Your task to perform on an android device: stop showing notifications on the lock screen Image 0: 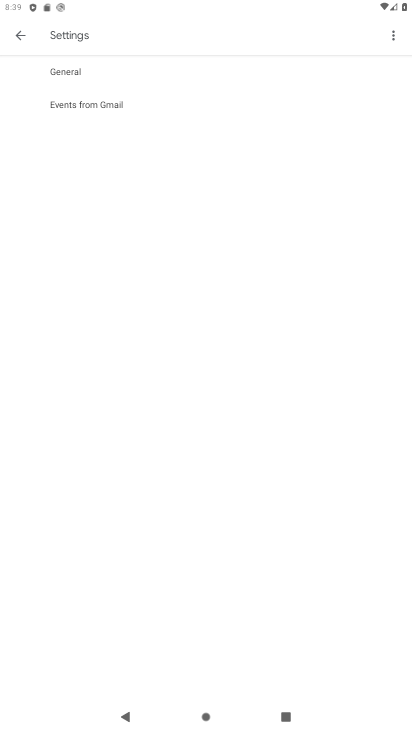
Step 0: drag from (306, 569) to (265, 199)
Your task to perform on an android device: stop showing notifications on the lock screen Image 1: 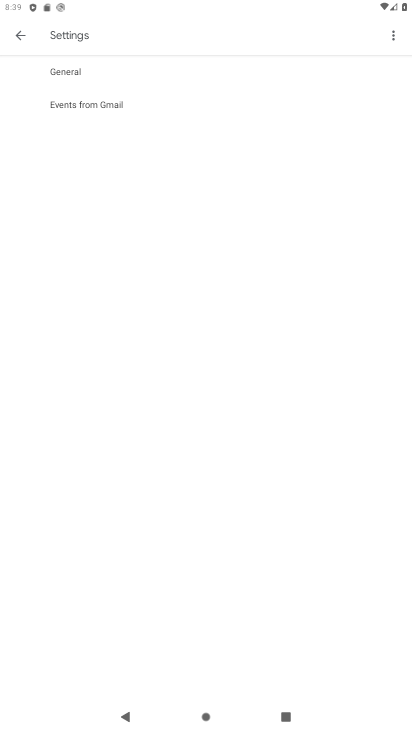
Step 1: press home button
Your task to perform on an android device: stop showing notifications on the lock screen Image 2: 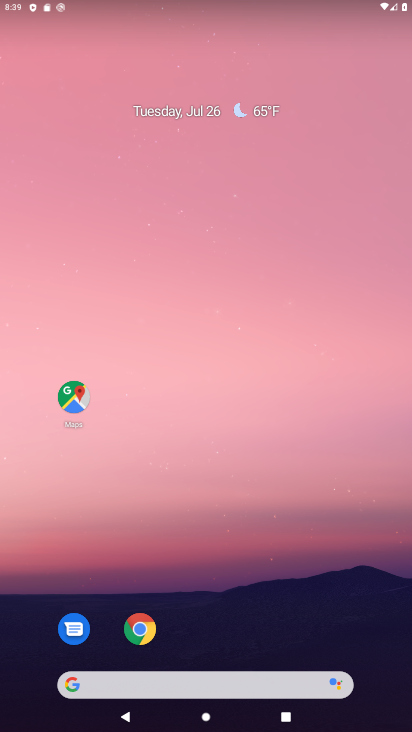
Step 2: drag from (379, 550) to (295, 179)
Your task to perform on an android device: stop showing notifications on the lock screen Image 3: 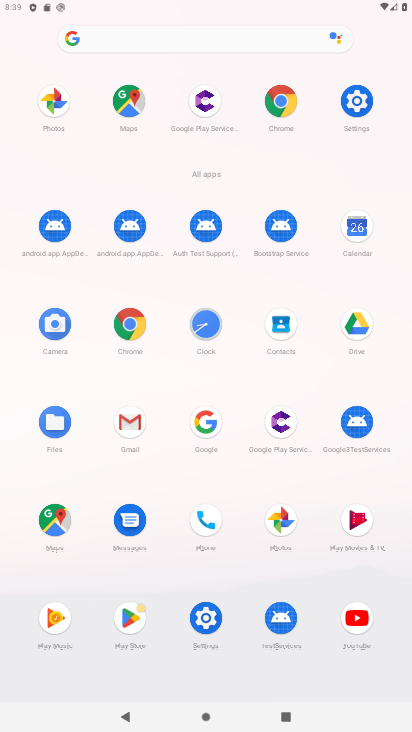
Step 3: click (355, 106)
Your task to perform on an android device: stop showing notifications on the lock screen Image 4: 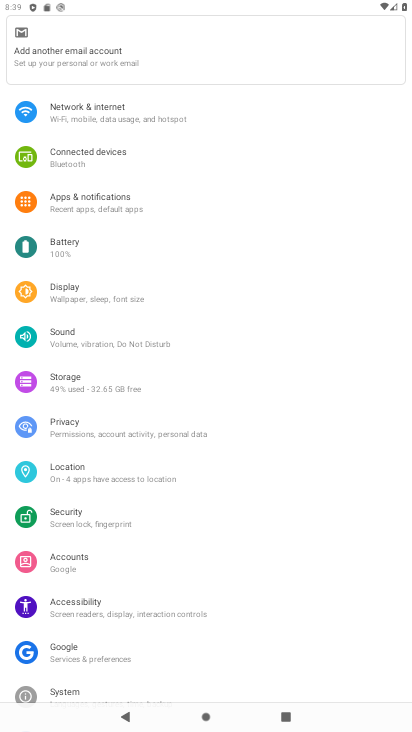
Step 4: click (95, 199)
Your task to perform on an android device: stop showing notifications on the lock screen Image 5: 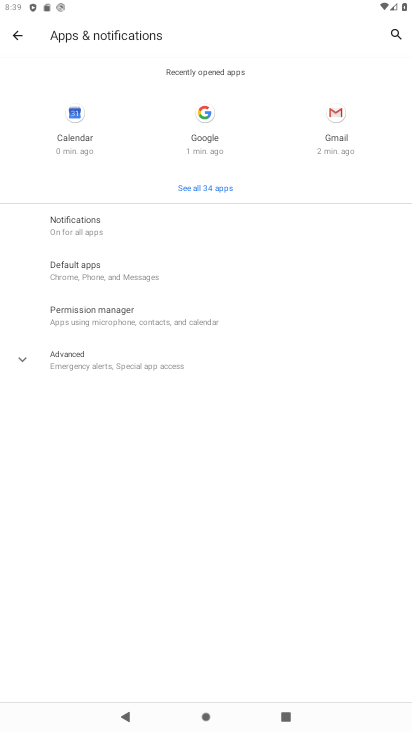
Step 5: click (96, 223)
Your task to perform on an android device: stop showing notifications on the lock screen Image 6: 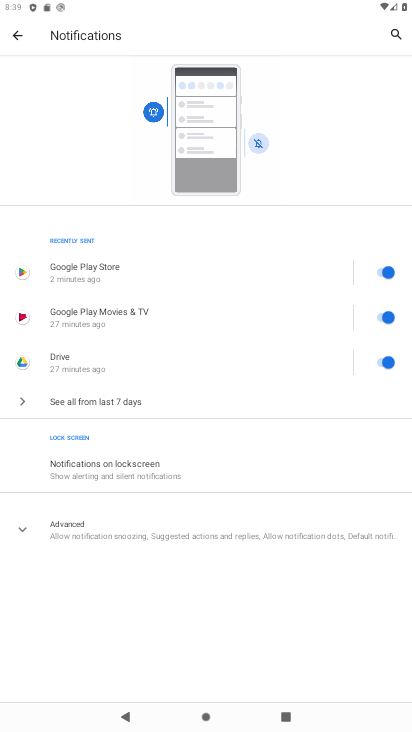
Step 6: click (125, 463)
Your task to perform on an android device: stop showing notifications on the lock screen Image 7: 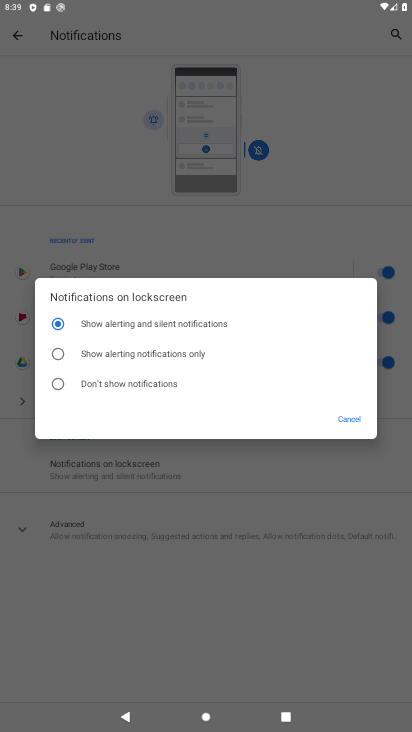
Step 7: click (128, 382)
Your task to perform on an android device: stop showing notifications on the lock screen Image 8: 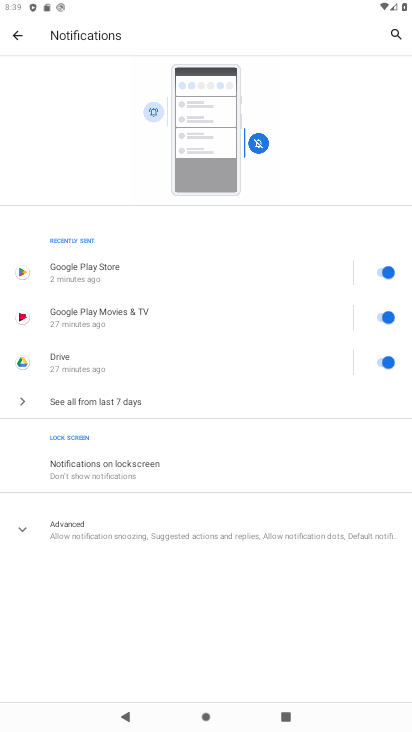
Step 8: task complete